Your task to perform on an android device: Open location settings Image 0: 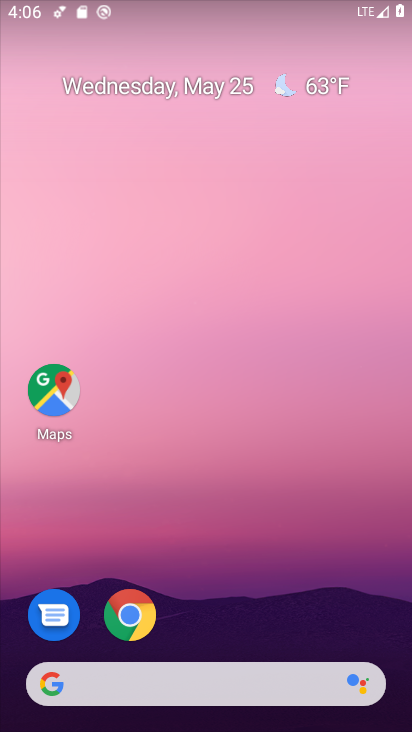
Step 0: drag from (290, 479) to (190, 58)
Your task to perform on an android device: Open location settings Image 1: 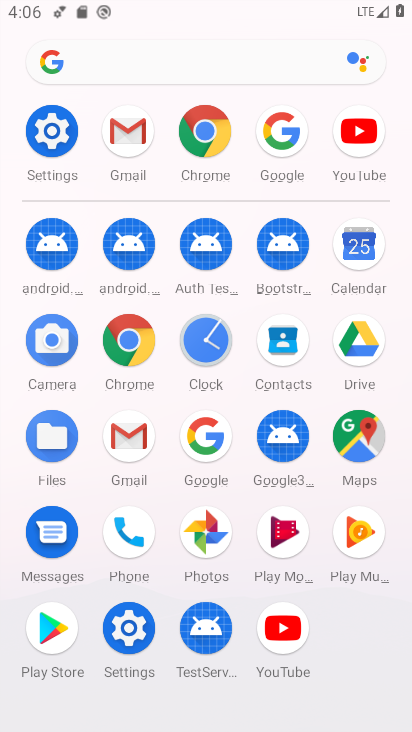
Step 1: click (66, 133)
Your task to perform on an android device: Open location settings Image 2: 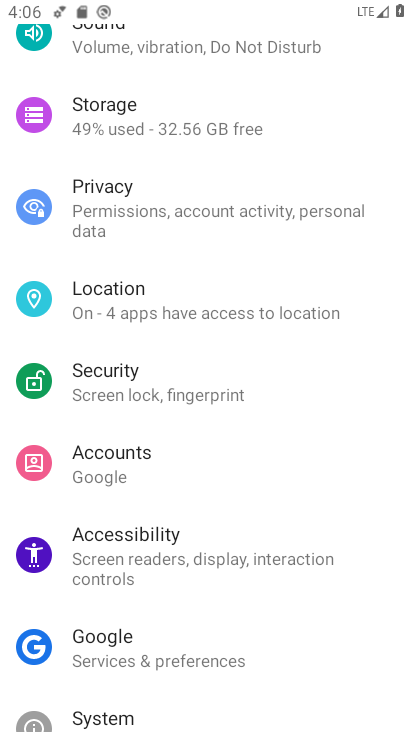
Step 2: click (198, 302)
Your task to perform on an android device: Open location settings Image 3: 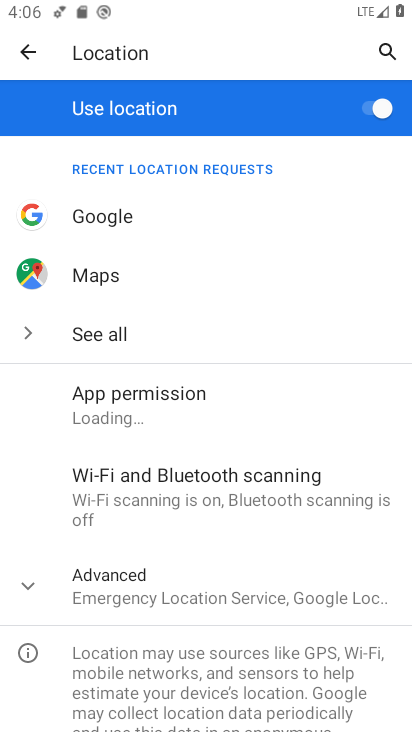
Step 3: task complete